Your task to perform on an android device: see sites visited before in the chrome app Image 0: 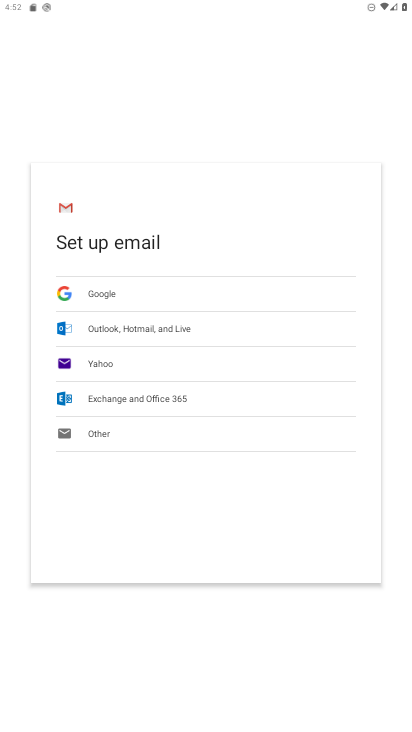
Step 0: press home button
Your task to perform on an android device: see sites visited before in the chrome app Image 1: 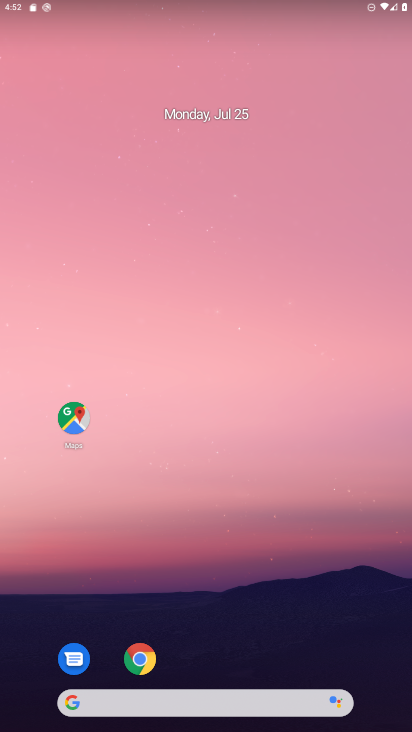
Step 1: click (139, 670)
Your task to perform on an android device: see sites visited before in the chrome app Image 2: 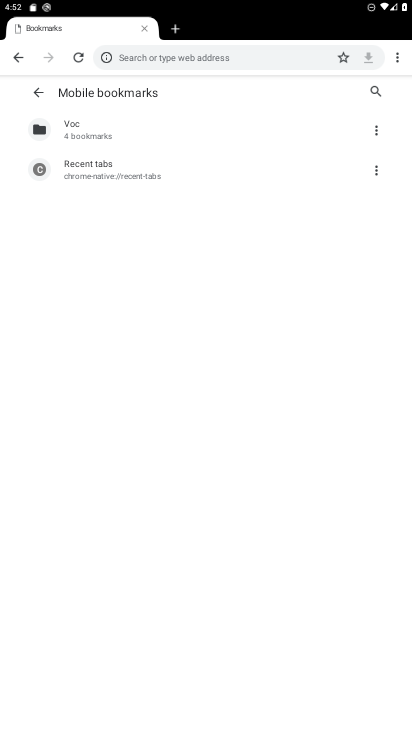
Step 2: click (397, 53)
Your task to perform on an android device: see sites visited before in the chrome app Image 3: 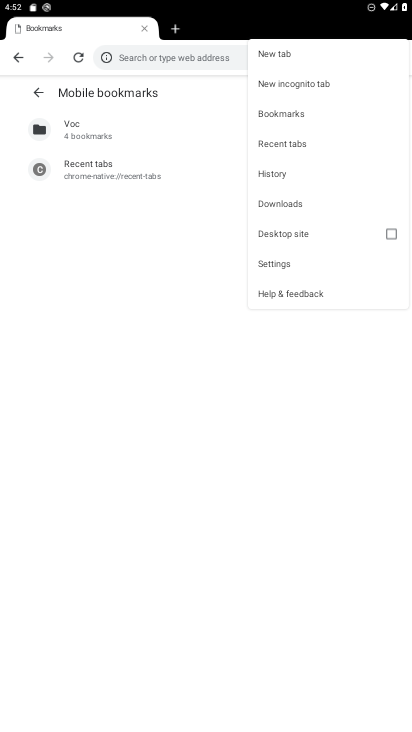
Step 3: click (279, 169)
Your task to perform on an android device: see sites visited before in the chrome app Image 4: 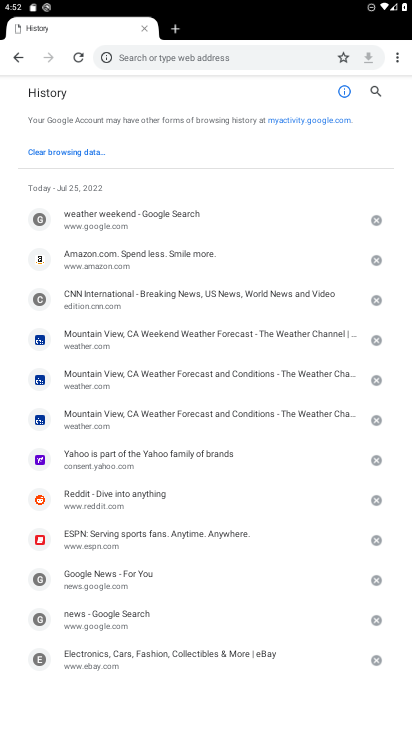
Step 4: task complete